Your task to perform on an android device: Open Android settings Image 0: 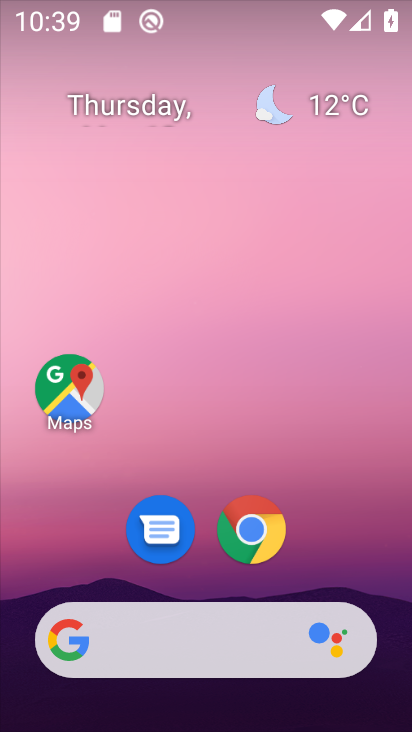
Step 0: drag from (186, 610) to (250, 246)
Your task to perform on an android device: Open Android settings Image 1: 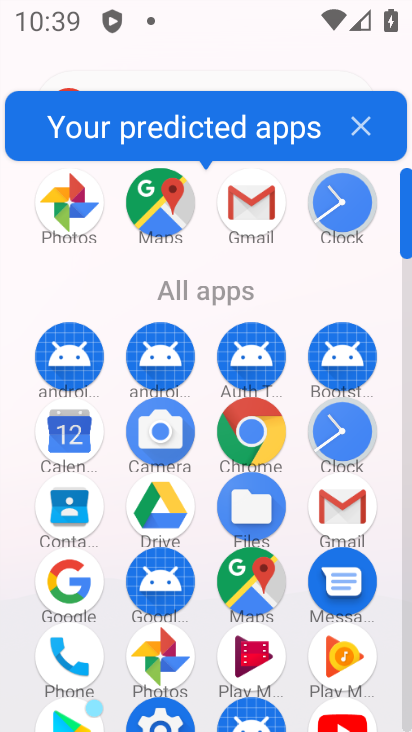
Step 1: drag from (214, 674) to (331, 232)
Your task to perform on an android device: Open Android settings Image 2: 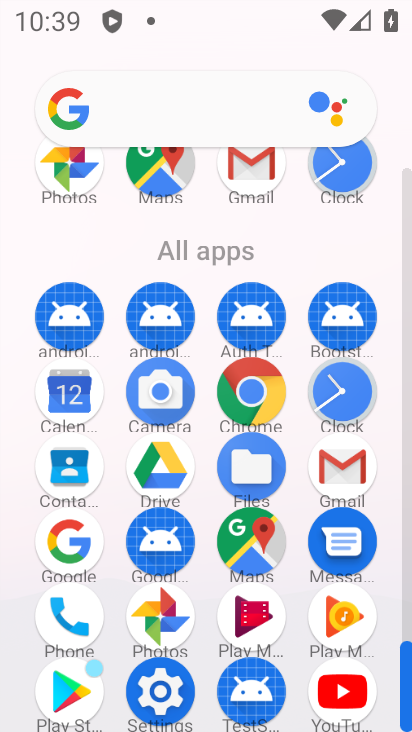
Step 2: click (170, 673)
Your task to perform on an android device: Open Android settings Image 3: 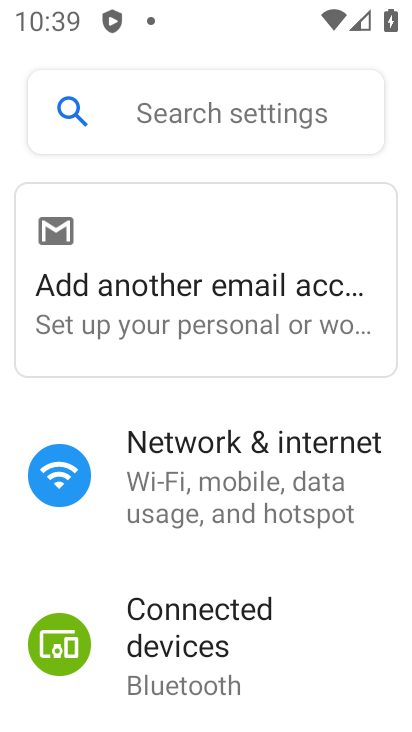
Step 3: task complete